Your task to perform on an android device: Open calendar and show me the fourth week of next month Image 0: 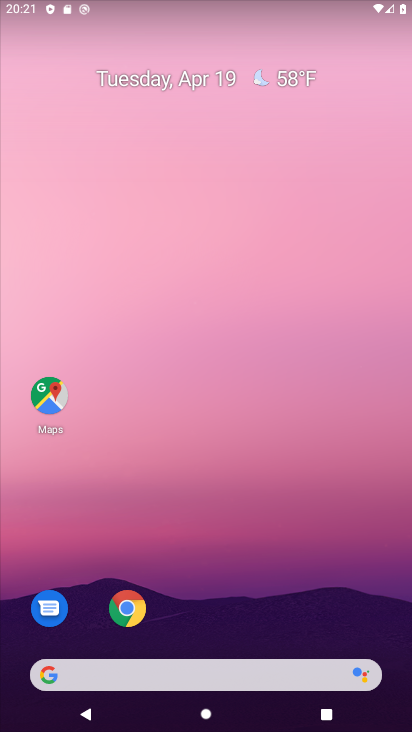
Step 0: drag from (195, 592) to (305, 25)
Your task to perform on an android device: Open calendar and show me the fourth week of next month Image 1: 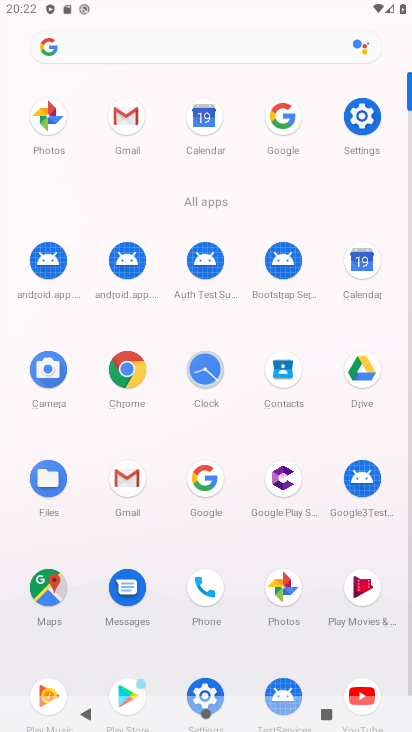
Step 1: click (359, 265)
Your task to perform on an android device: Open calendar and show me the fourth week of next month Image 2: 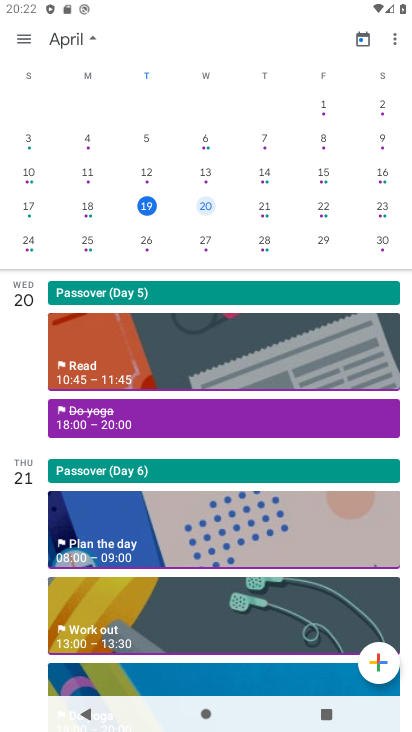
Step 2: click (366, 42)
Your task to perform on an android device: Open calendar and show me the fourth week of next month Image 3: 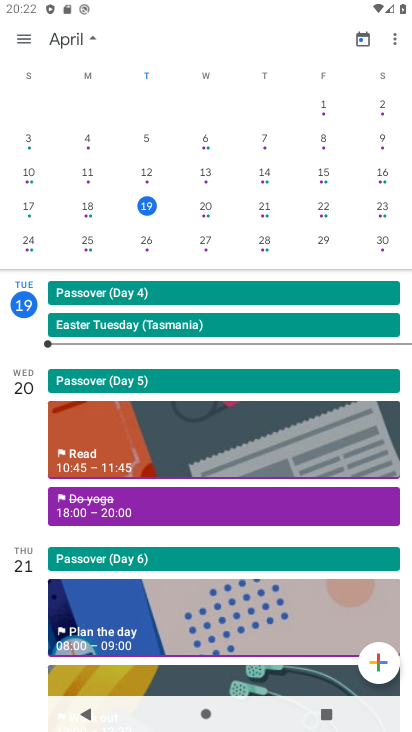
Step 3: drag from (373, 199) to (0, 221)
Your task to perform on an android device: Open calendar and show me the fourth week of next month Image 4: 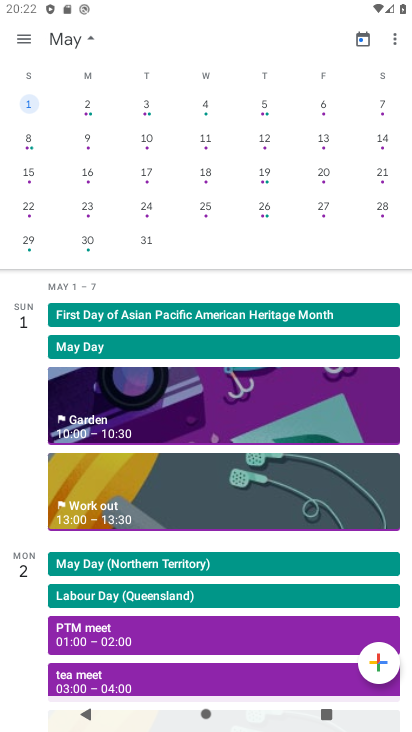
Step 4: click (90, 207)
Your task to perform on an android device: Open calendar and show me the fourth week of next month Image 5: 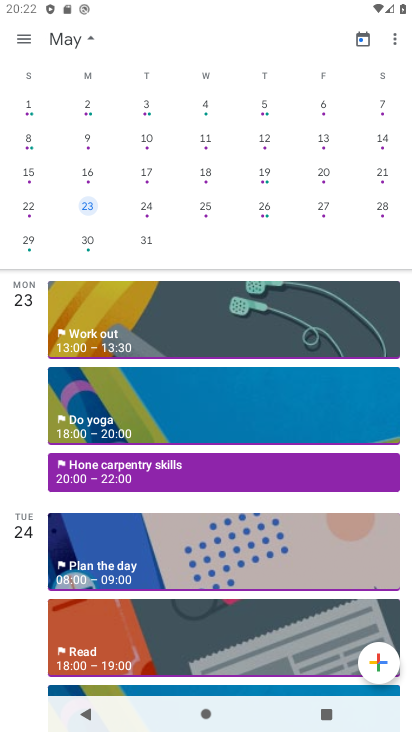
Step 5: click (27, 41)
Your task to perform on an android device: Open calendar and show me the fourth week of next month Image 6: 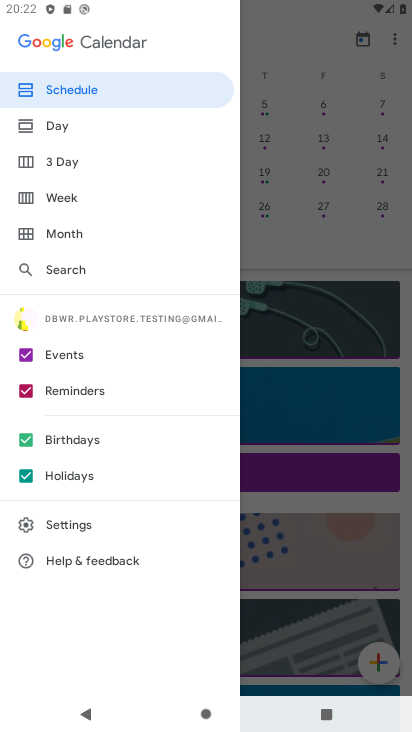
Step 6: click (72, 193)
Your task to perform on an android device: Open calendar and show me the fourth week of next month Image 7: 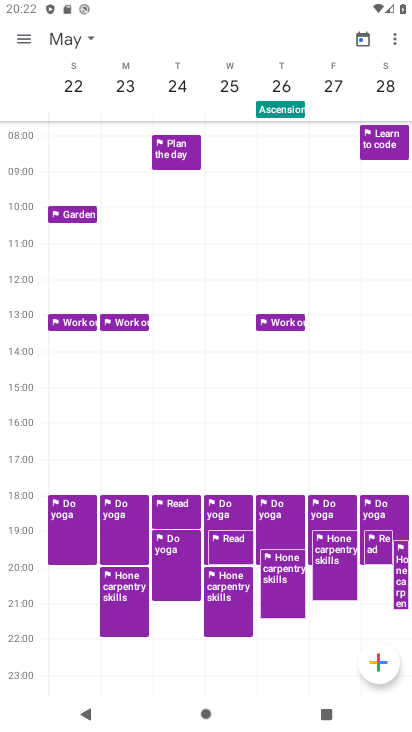
Step 7: task complete